Your task to perform on an android device: uninstall "Booking.com: Hotels and more" Image 0: 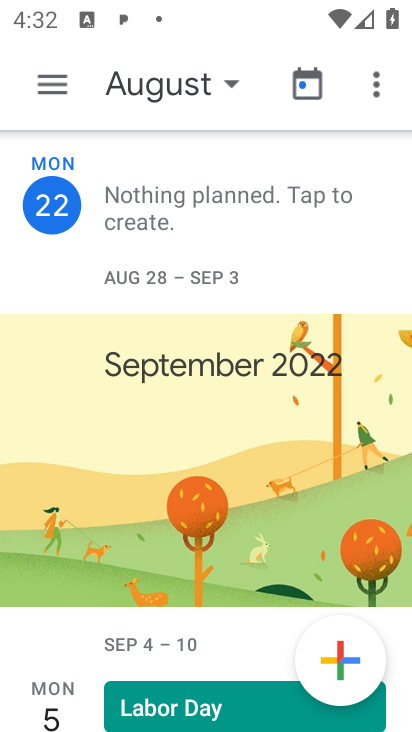
Step 0: press home button
Your task to perform on an android device: uninstall "Booking.com: Hotels and more" Image 1: 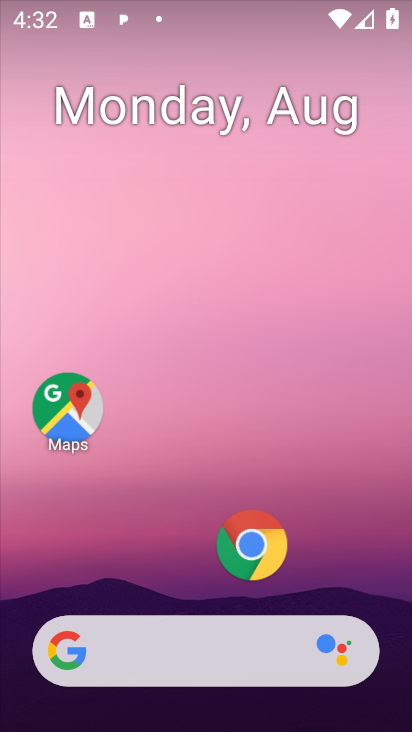
Step 1: drag from (148, 442) to (190, 87)
Your task to perform on an android device: uninstall "Booking.com: Hotels and more" Image 2: 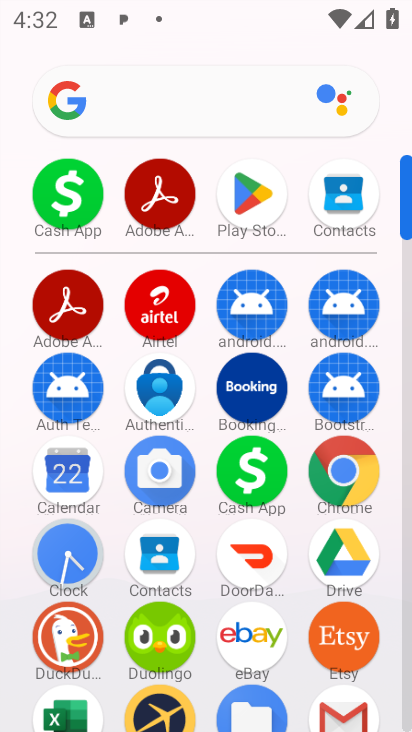
Step 2: click (226, 209)
Your task to perform on an android device: uninstall "Booking.com: Hotels and more" Image 3: 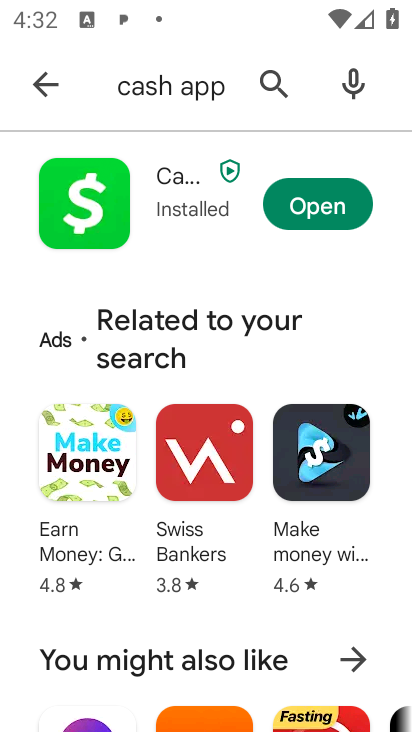
Step 3: click (259, 77)
Your task to perform on an android device: uninstall "Booking.com: Hotels and more" Image 4: 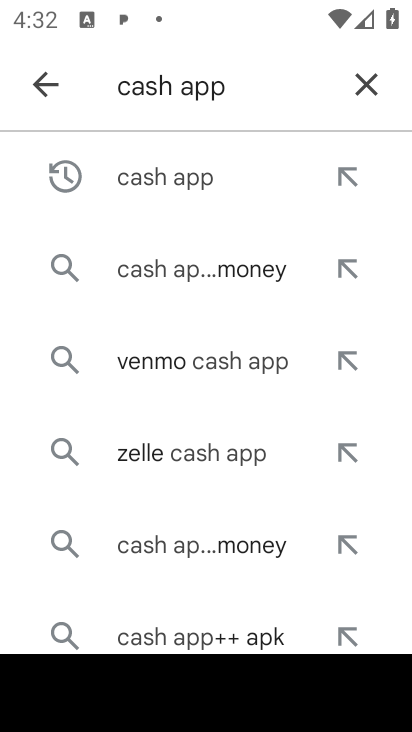
Step 4: click (366, 77)
Your task to perform on an android device: uninstall "Booking.com: Hotels and more" Image 5: 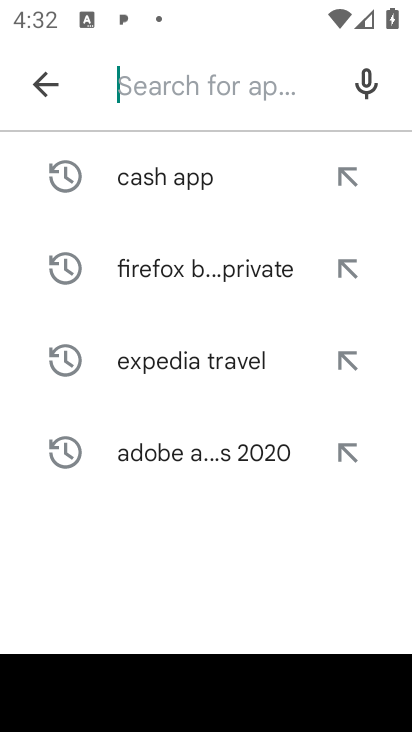
Step 5: type "booking.com"
Your task to perform on an android device: uninstall "Booking.com: Hotels and more" Image 6: 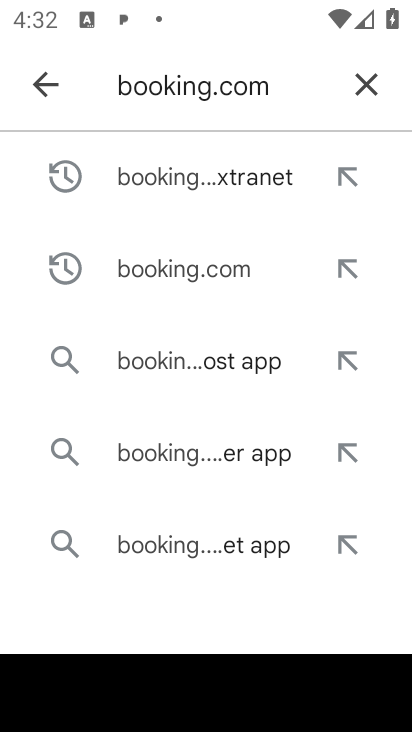
Step 6: click (158, 271)
Your task to perform on an android device: uninstall "Booking.com: Hotels and more" Image 7: 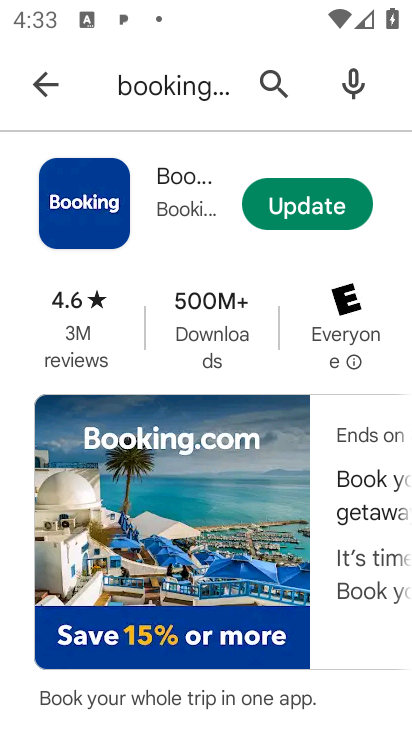
Step 7: click (202, 185)
Your task to perform on an android device: uninstall "Booking.com: Hotels and more" Image 8: 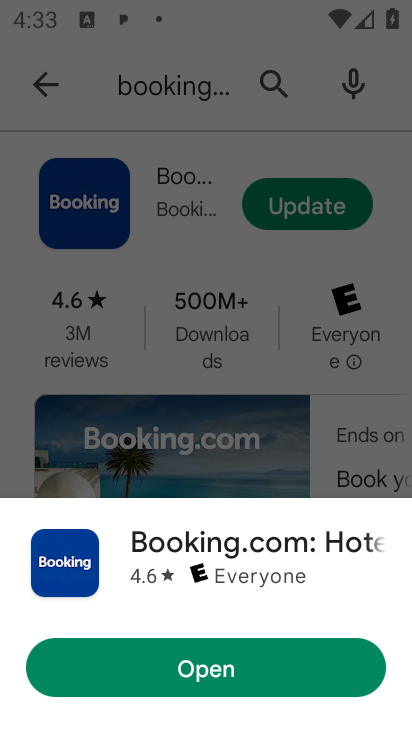
Step 8: task complete